Your task to perform on an android device: Go to Google Image 0: 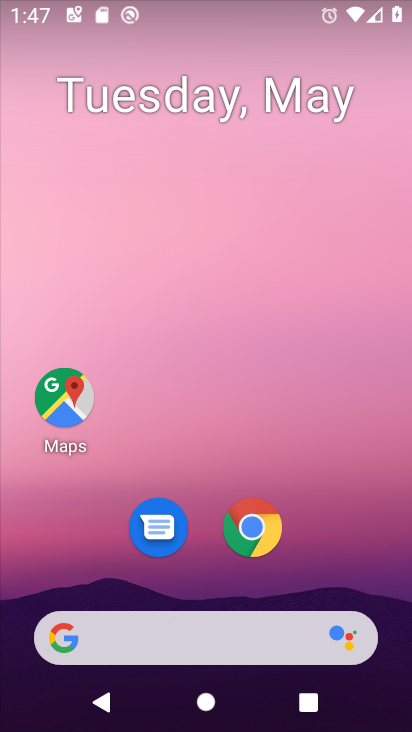
Step 0: drag from (147, 629) to (162, 239)
Your task to perform on an android device: Go to Google Image 1: 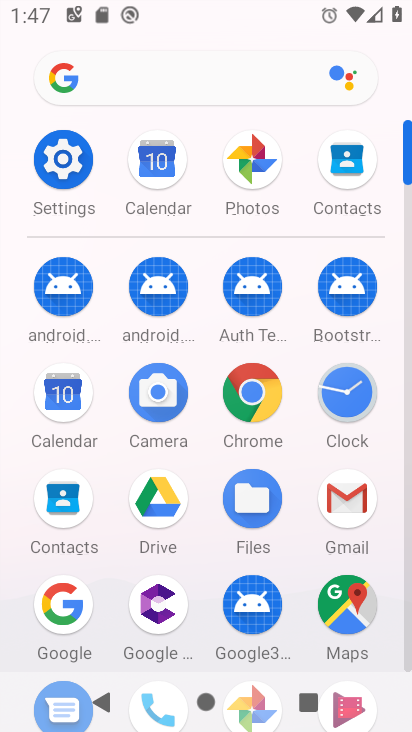
Step 1: click (74, 603)
Your task to perform on an android device: Go to Google Image 2: 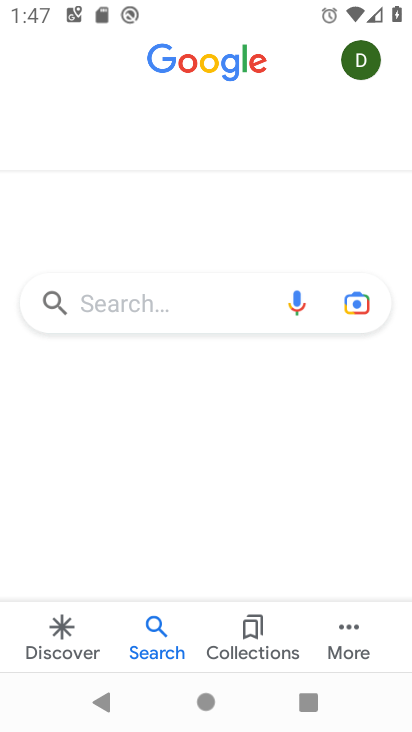
Step 2: task complete